Your task to perform on an android device: Go to notification settings Image 0: 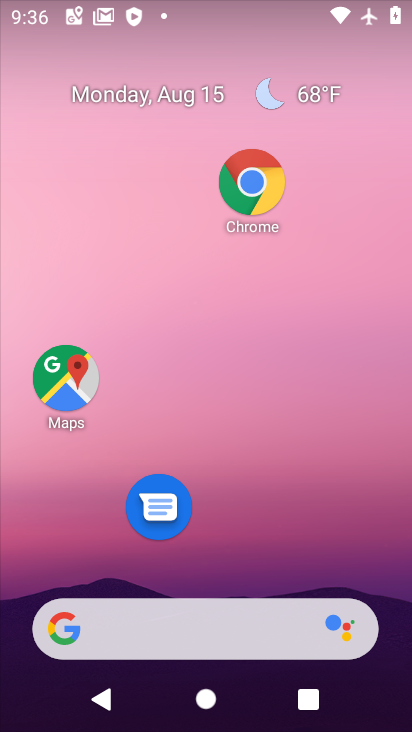
Step 0: click (256, 590)
Your task to perform on an android device: Go to notification settings Image 1: 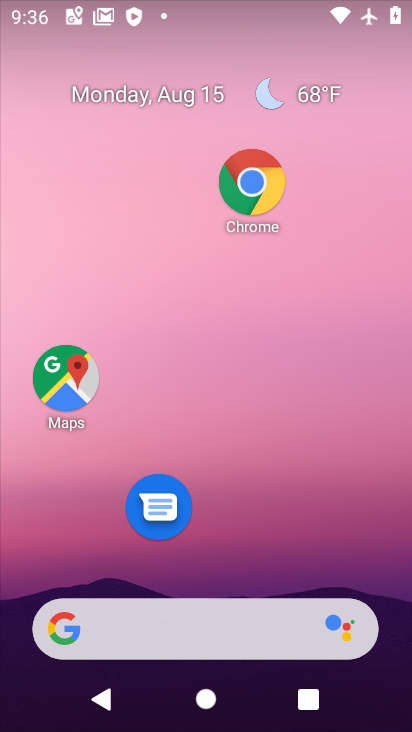
Step 1: task complete